Your task to perform on an android device: toggle sleep mode Image 0: 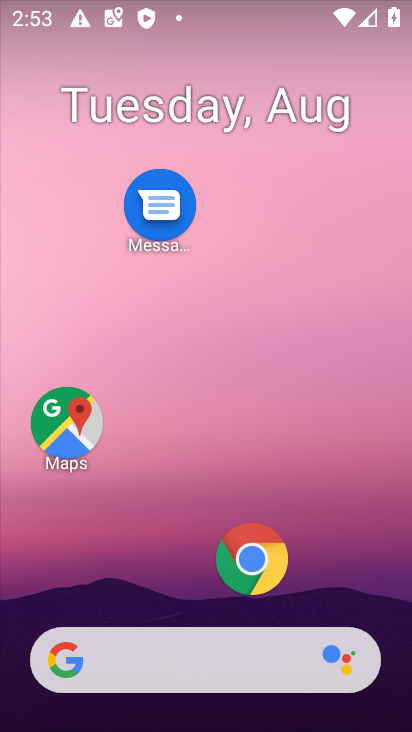
Step 0: drag from (158, 590) to (160, 16)
Your task to perform on an android device: toggle sleep mode Image 1: 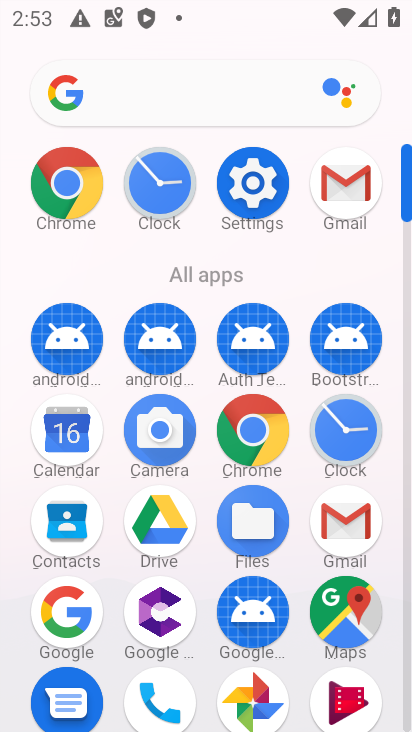
Step 1: click (253, 183)
Your task to perform on an android device: toggle sleep mode Image 2: 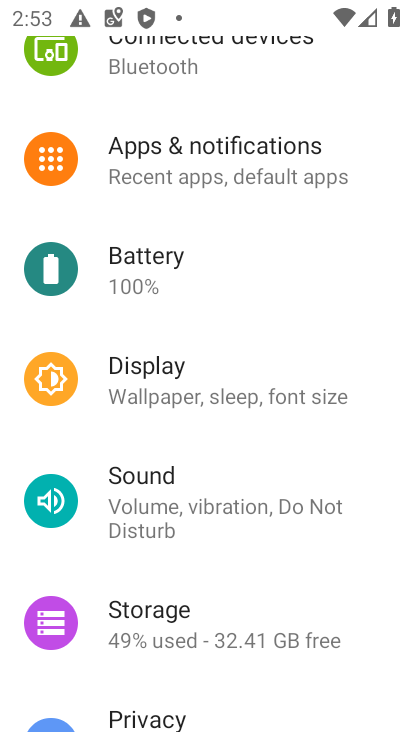
Step 2: click (151, 372)
Your task to perform on an android device: toggle sleep mode Image 3: 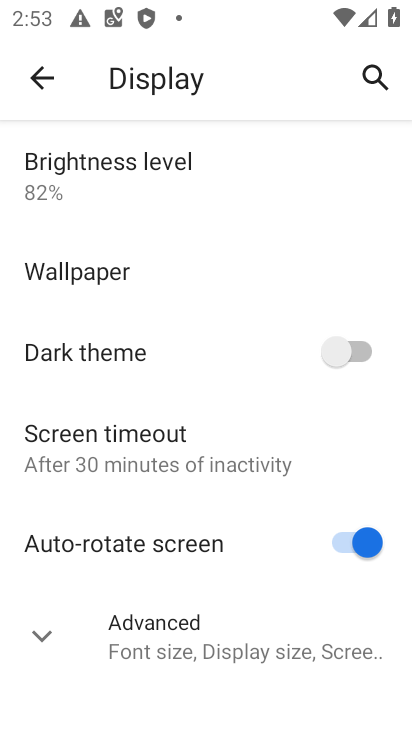
Step 3: task complete